Your task to perform on an android device: Go to CNN.com Image 0: 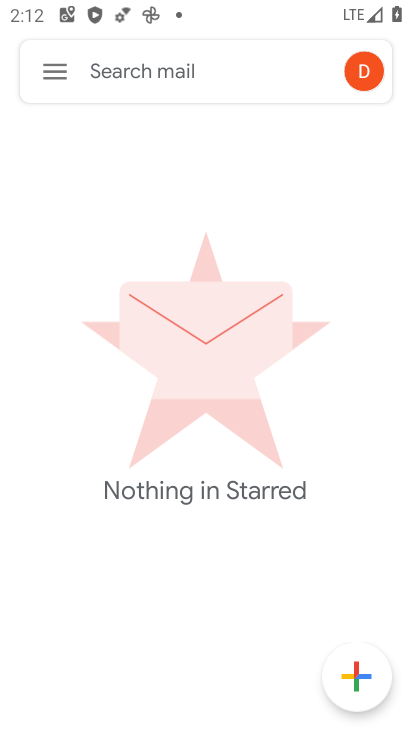
Step 0: press home button
Your task to perform on an android device: Go to CNN.com Image 1: 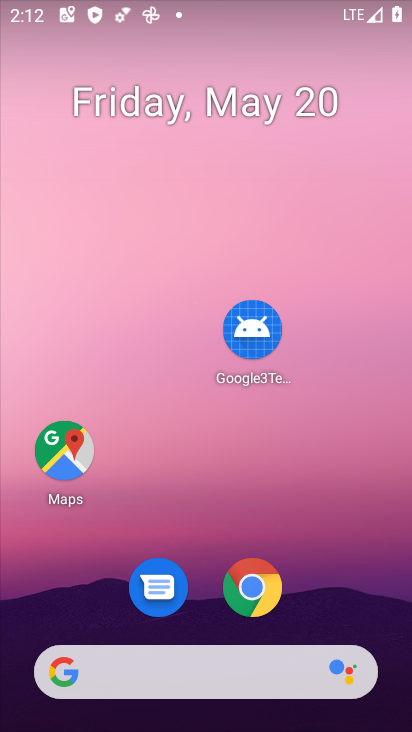
Step 1: click (254, 585)
Your task to perform on an android device: Go to CNN.com Image 2: 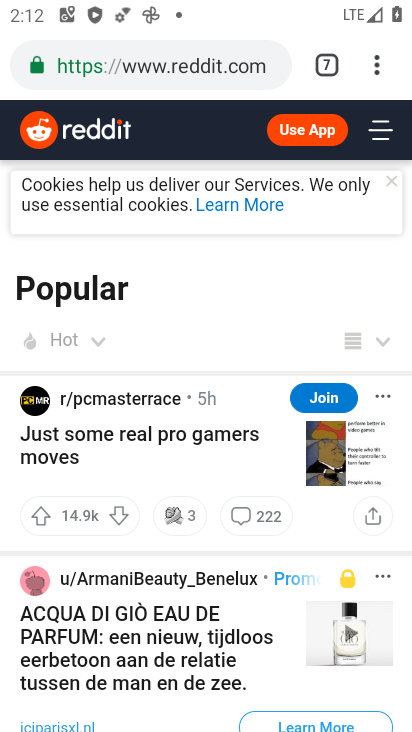
Step 2: click (374, 60)
Your task to perform on an android device: Go to CNN.com Image 3: 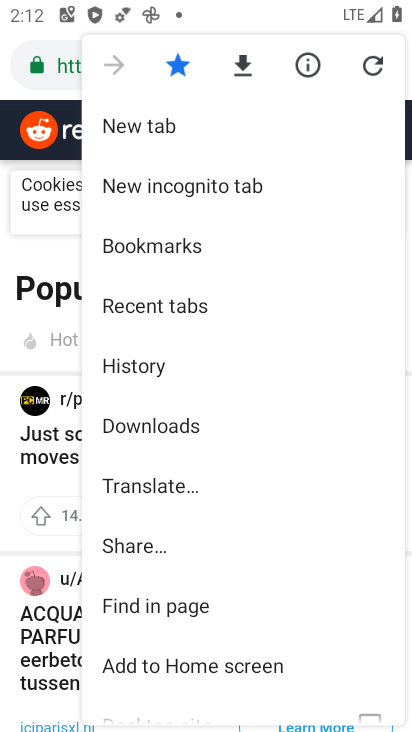
Step 3: click (174, 124)
Your task to perform on an android device: Go to CNN.com Image 4: 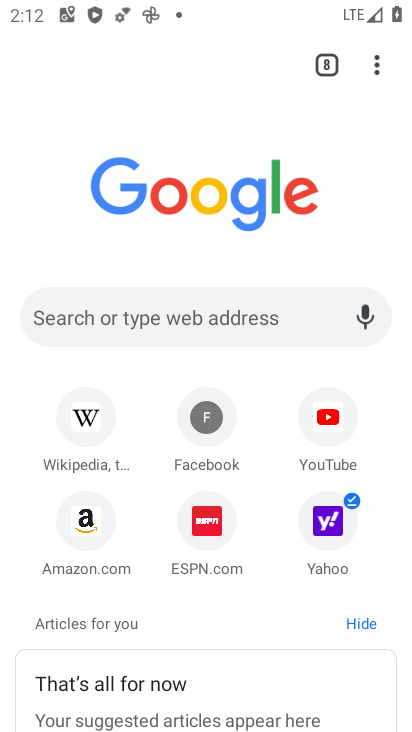
Step 4: click (191, 308)
Your task to perform on an android device: Go to CNN.com Image 5: 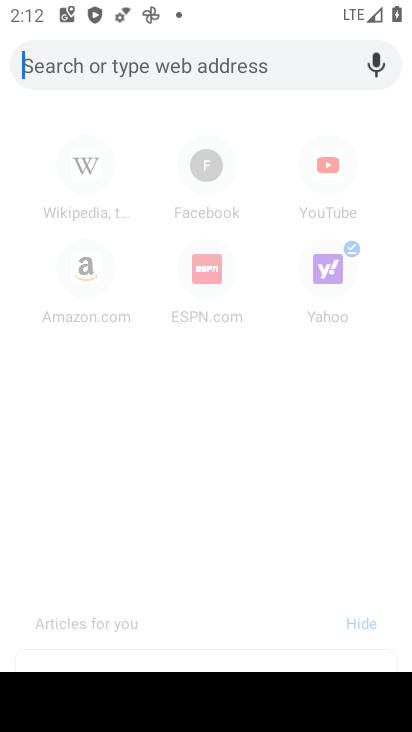
Step 5: type "cnn.com"
Your task to perform on an android device: Go to CNN.com Image 6: 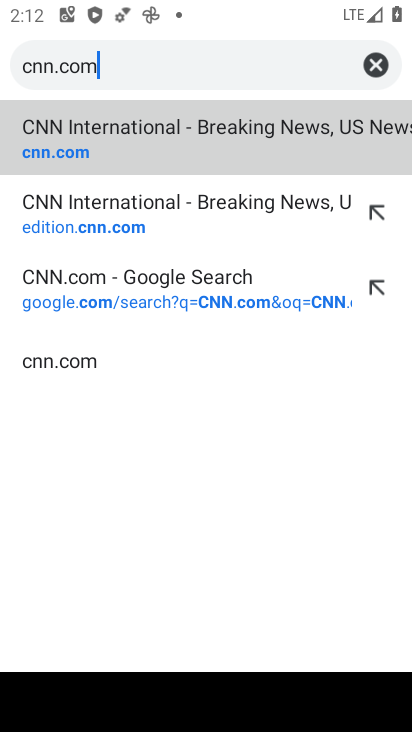
Step 6: click (108, 146)
Your task to perform on an android device: Go to CNN.com Image 7: 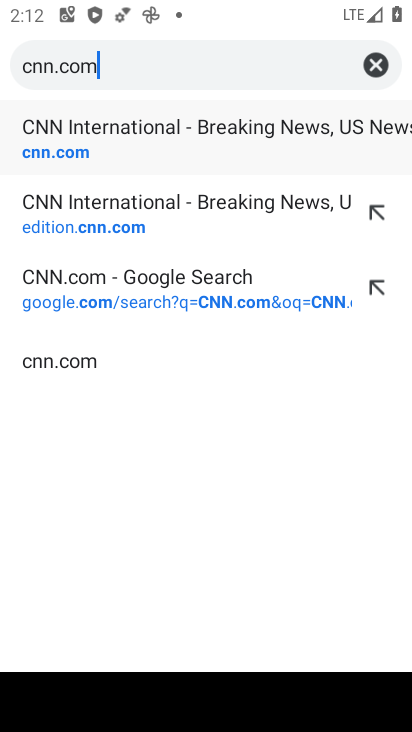
Step 7: click (108, 146)
Your task to perform on an android device: Go to CNN.com Image 8: 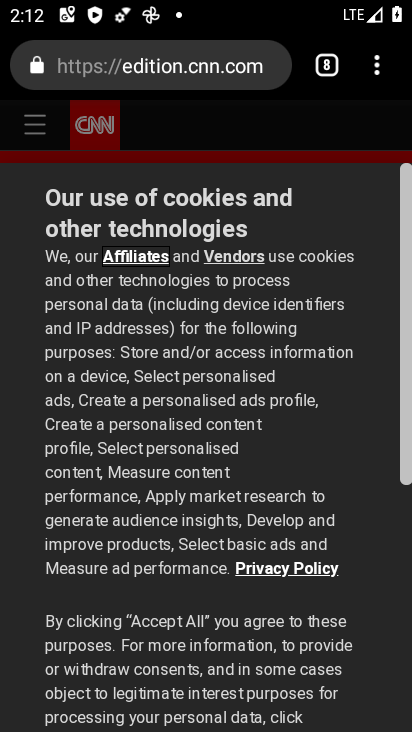
Step 8: task complete